Your task to perform on an android device: see tabs open on other devices in the chrome app Image 0: 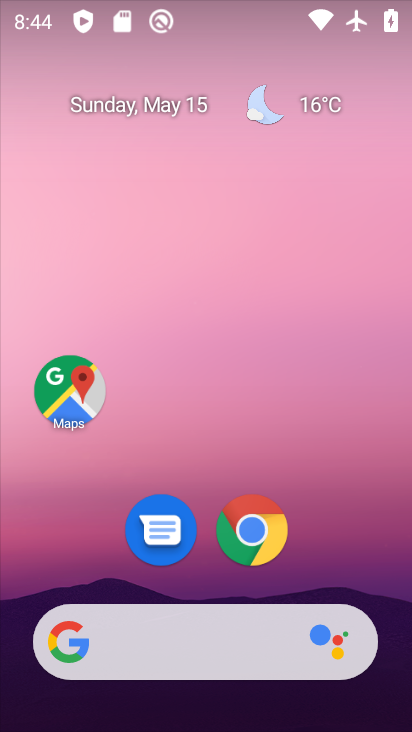
Step 0: click (260, 534)
Your task to perform on an android device: see tabs open on other devices in the chrome app Image 1: 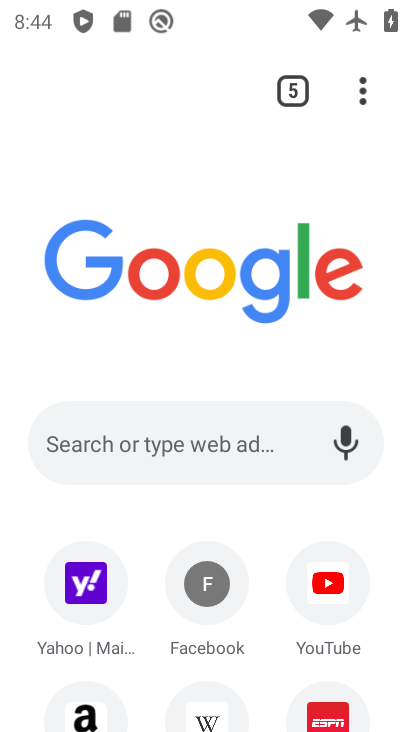
Step 1: click (362, 100)
Your task to perform on an android device: see tabs open on other devices in the chrome app Image 2: 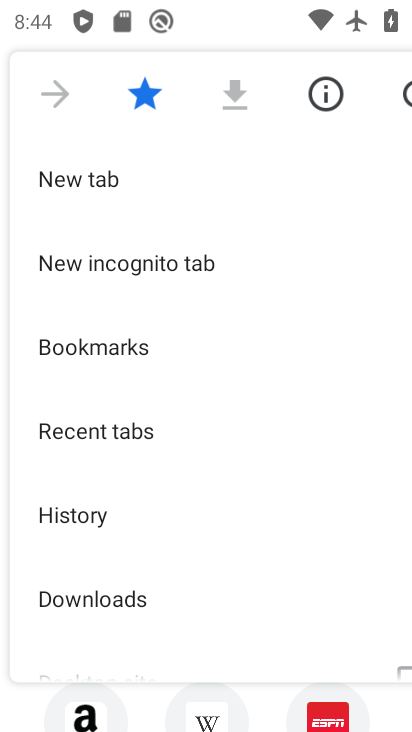
Step 2: click (93, 428)
Your task to perform on an android device: see tabs open on other devices in the chrome app Image 3: 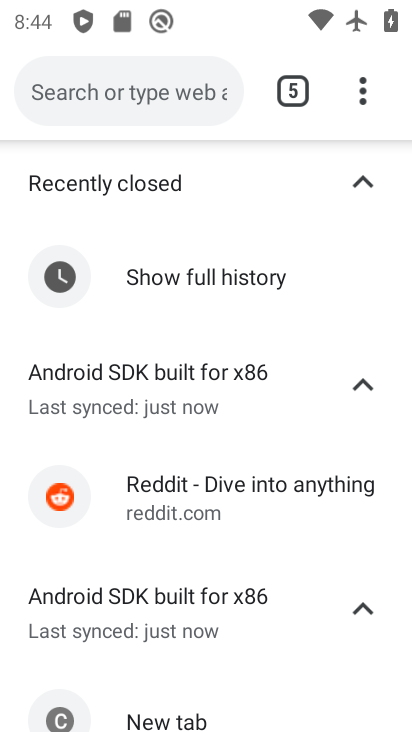
Step 3: task complete